Your task to perform on an android device: Go to privacy settings Image 0: 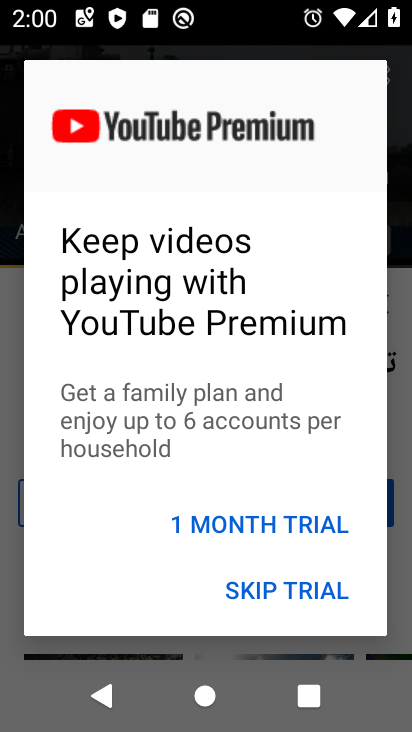
Step 0: press back button
Your task to perform on an android device: Go to privacy settings Image 1: 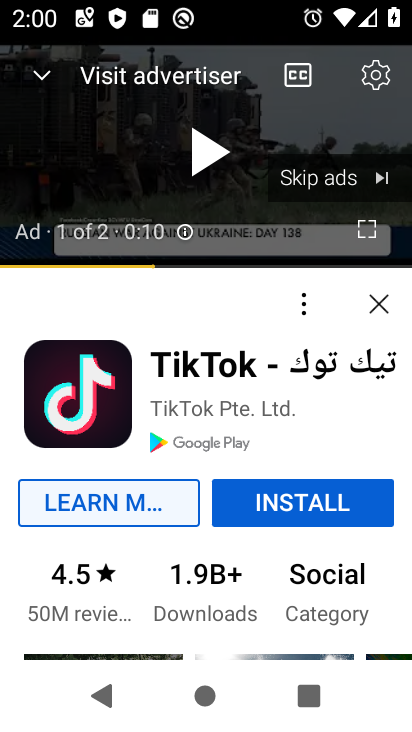
Step 1: press back button
Your task to perform on an android device: Go to privacy settings Image 2: 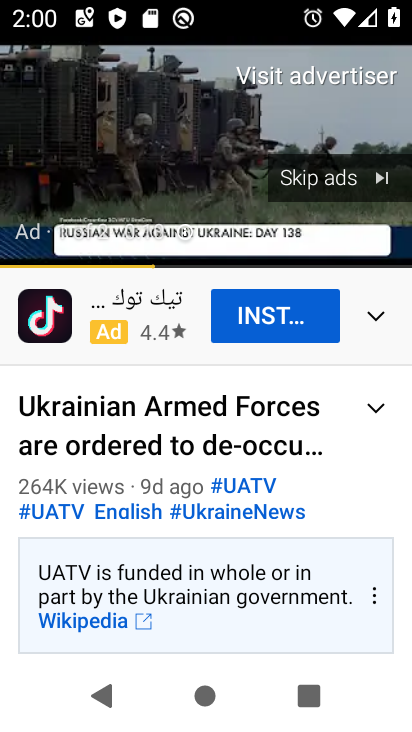
Step 2: press back button
Your task to perform on an android device: Go to privacy settings Image 3: 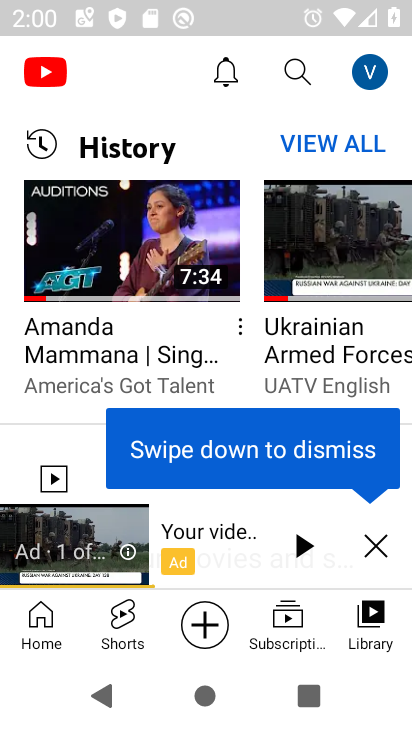
Step 3: press back button
Your task to perform on an android device: Go to privacy settings Image 4: 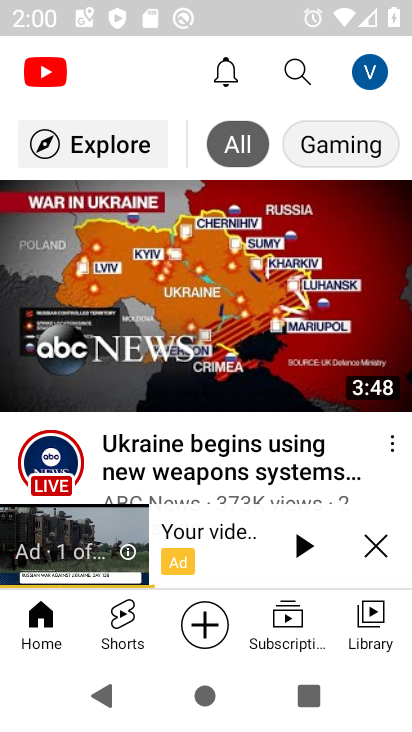
Step 4: press back button
Your task to perform on an android device: Go to privacy settings Image 5: 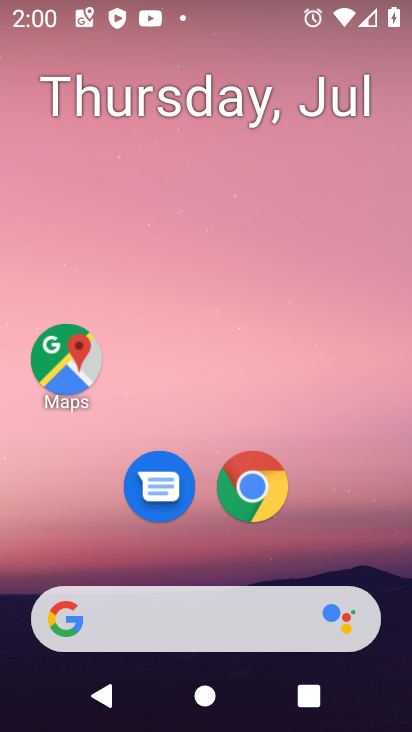
Step 5: drag from (177, 560) to (330, 3)
Your task to perform on an android device: Go to privacy settings Image 6: 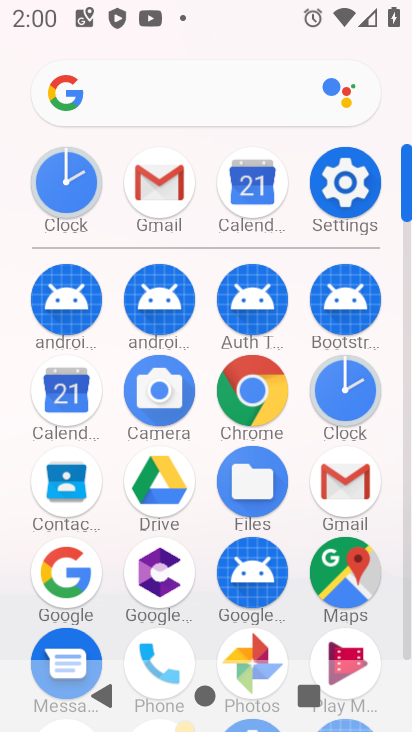
Step 6: click (350, 176)
Your task to perform on an android device: Go to privacy settings Image 7: 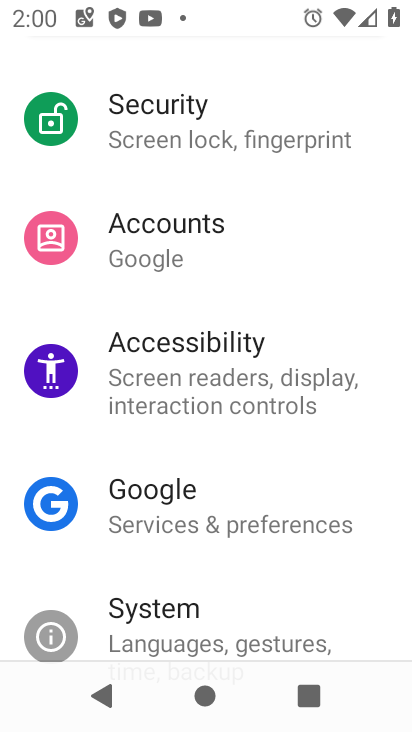
Step 7: drag from (152, 615) to (120, 702)
Your task to perform on an android device: Go to privacy settings Image 8: 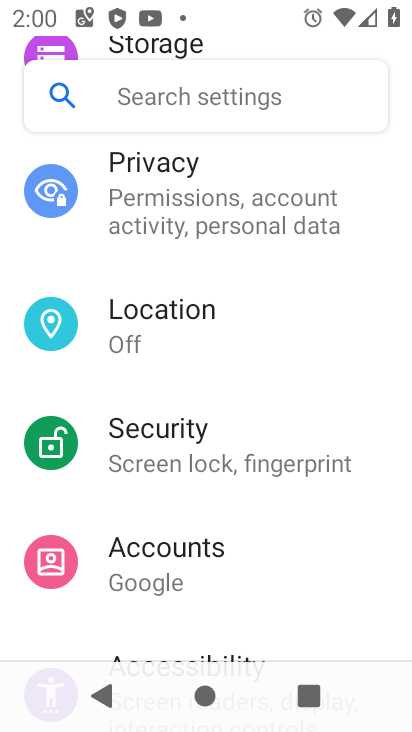
Step 8: click (146, 205)
Your task to perform on an android device: Go to privacy settings Image 9: 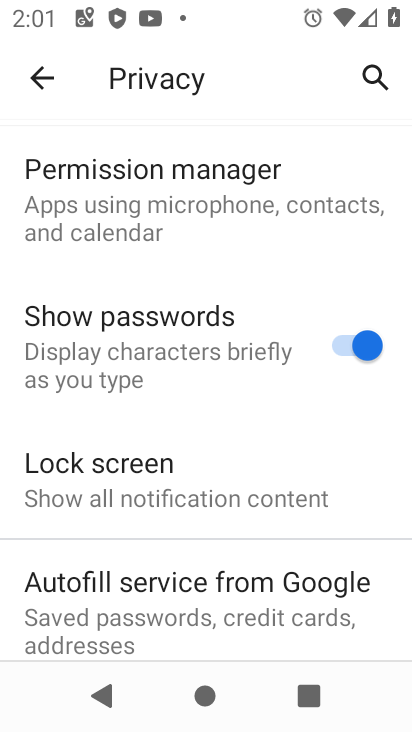
Step 9: task complete